Your task to perform on an android device: set default search engine in the chrome app Image 0: 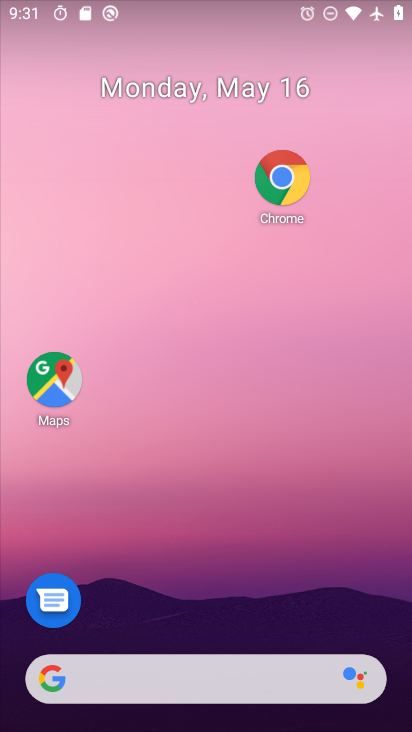
Step 0: press home button
Your task to perform on an android device: set default search engine in the chrome app Image 1: 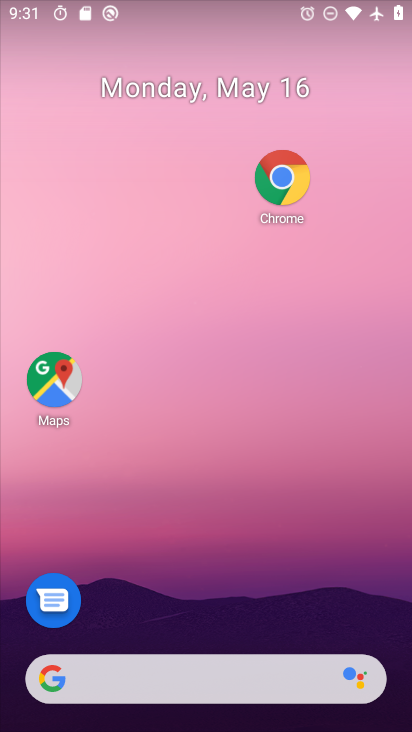
Step 1: drag from (166, 685) to (323, 149)
Your task to perform on an android device: set default search engine in the chrome app Image 2: 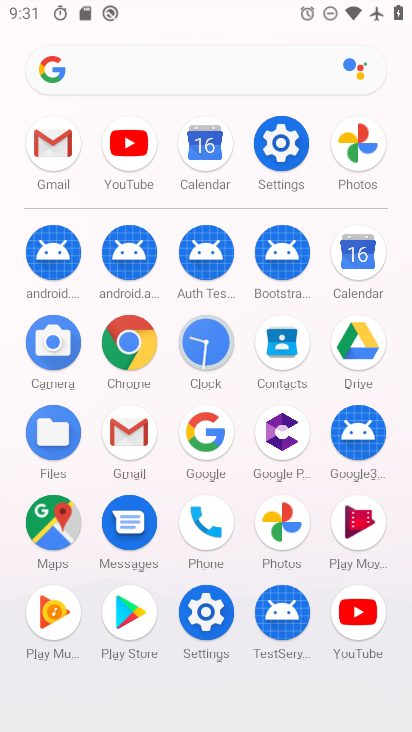
Step 2: click (131, 345)
Your task to perform on an android device: set default search engine in the chrome app Image 3: 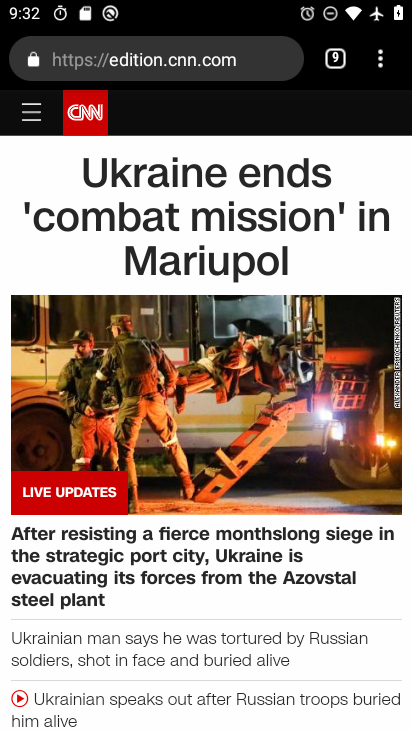
Step 3: drag from (374, 68) to (246, 613)
Your task to perform on an android device: set default search engine in the chrome app Image 4: 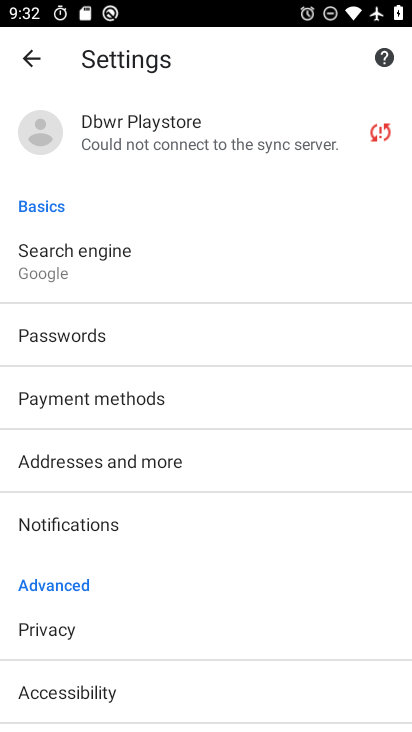
Step 4: click (58, 257)
Your task to perform on an android device: set default search engine in the chrome app Image 5: 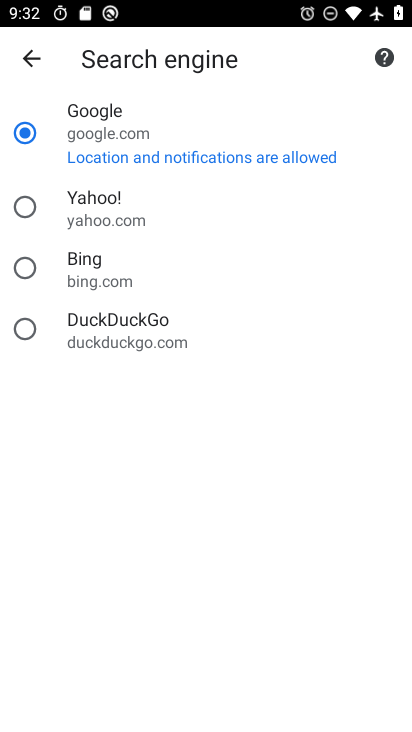
Step 5: click (25, 207)
Your task to perform on an android device: set default search engine in the chrome app Image 6: 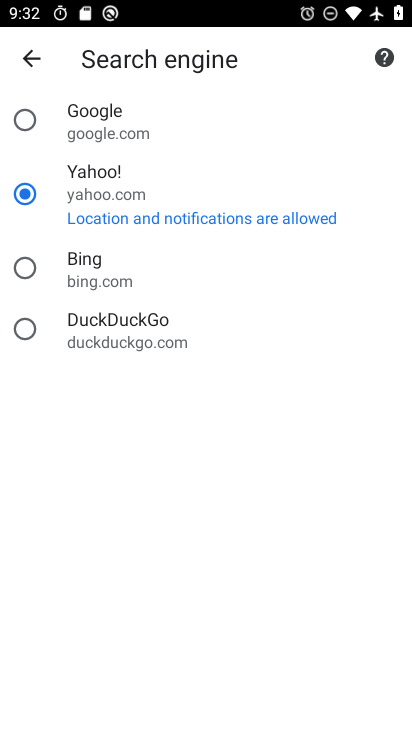
Step 6: click (26, 119)
Your task to perform on an android device: set default search engine in the chrome app Image 7: 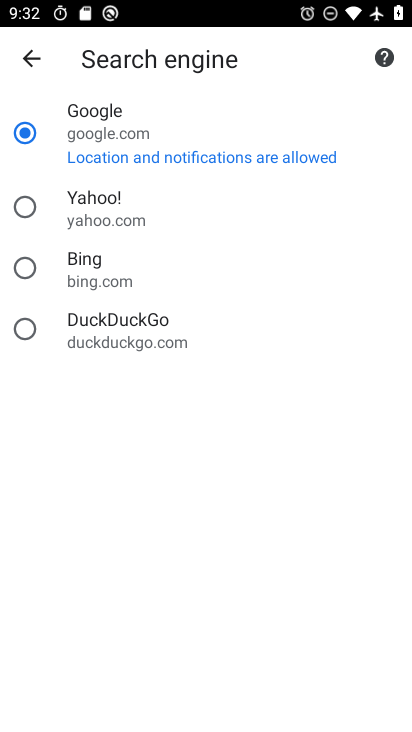
Step 7: click (23, 203)
Your task to perform on an android device: set default search engine in the chrome app Image 8: 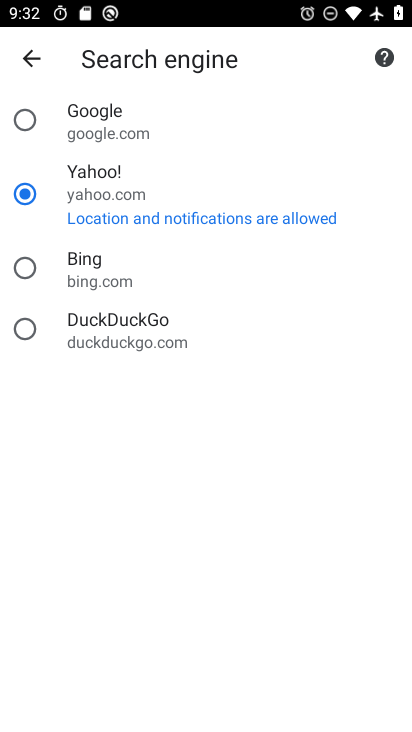
Step 8: task complete